Your task to perform on an android device: show emergency info Image 0: 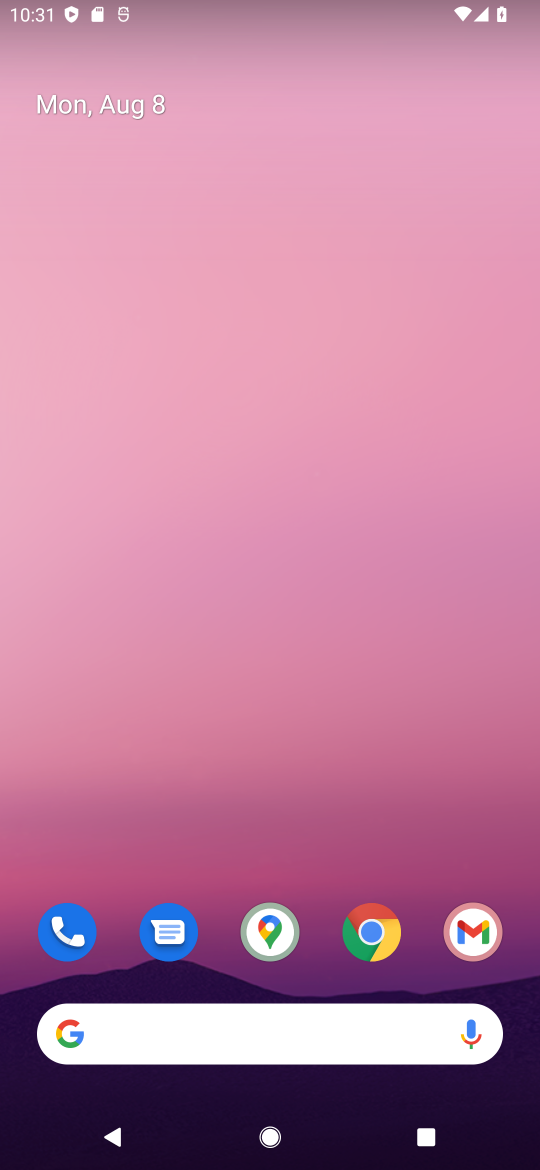
Step 0: drag from (234, 886) to (128, 377)
Your task to perform on an android device: show emergency info Image 1: 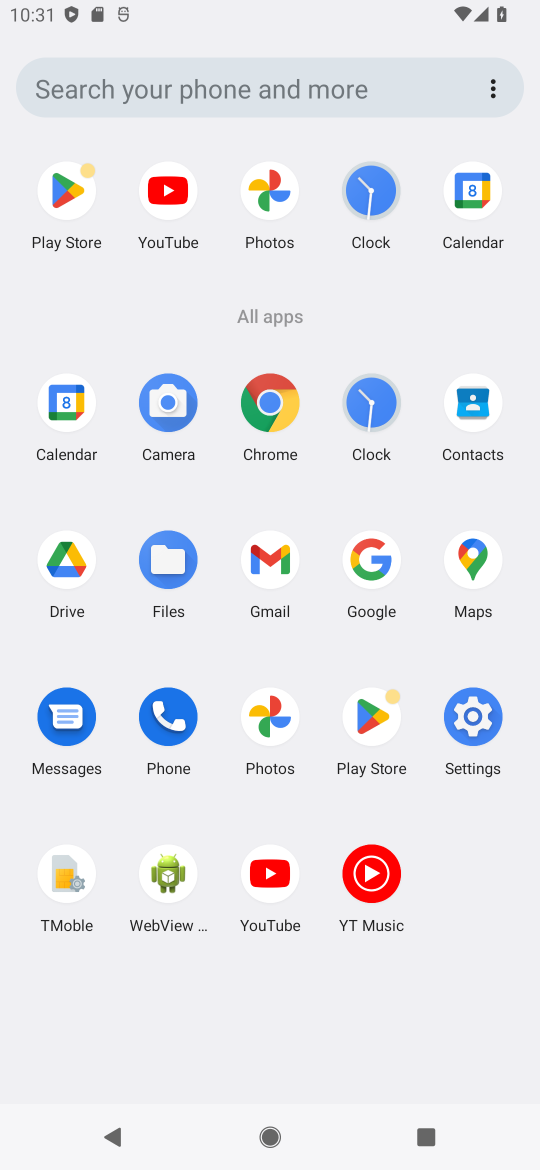
Step 1: click (471, 712)
Your task to perform on an android device: show emergency info Image 2: 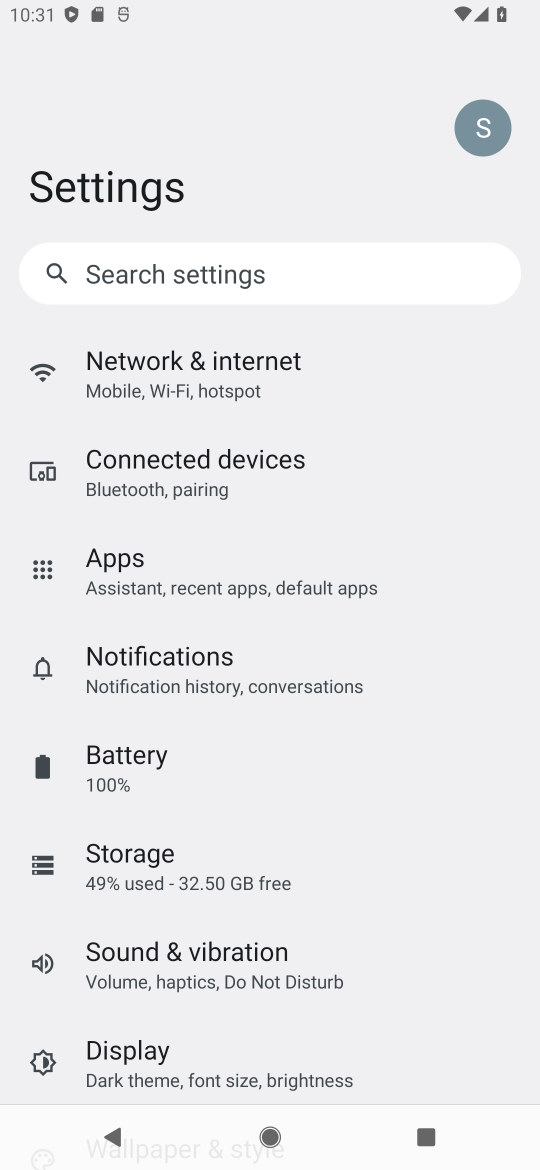
Step 2: drag from (190, 978) to (177, 148)
Your task to perform on an android device: show emergency info Image 3: 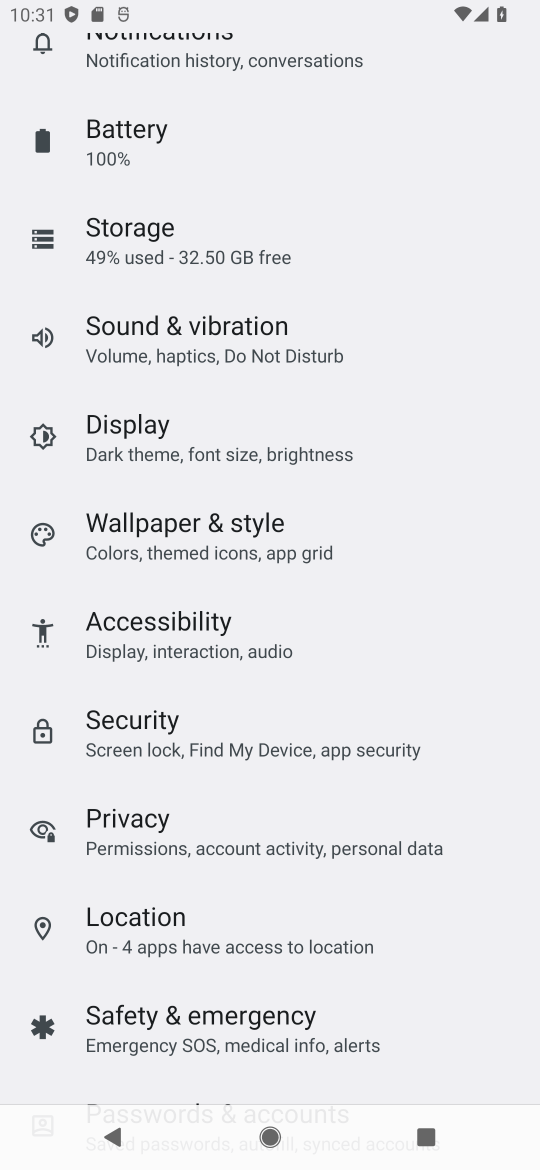
Step 3: click (207, 1027)
Your task to perform on an android device: show emergency info Image 4: 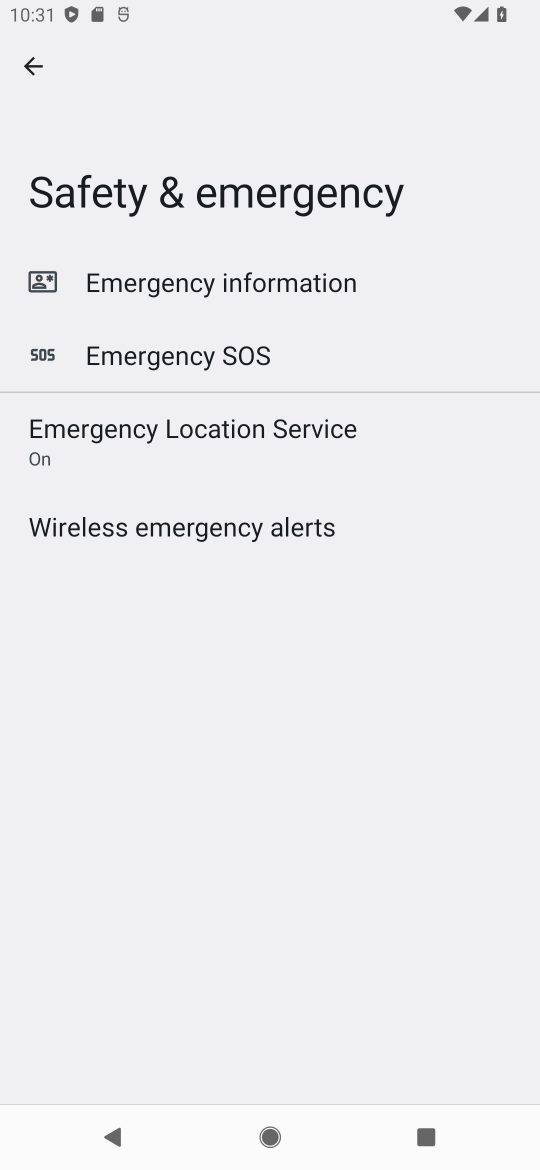
Step 4: click (323, 301)
Your task to perform on an android device: show emergency info Image 5: 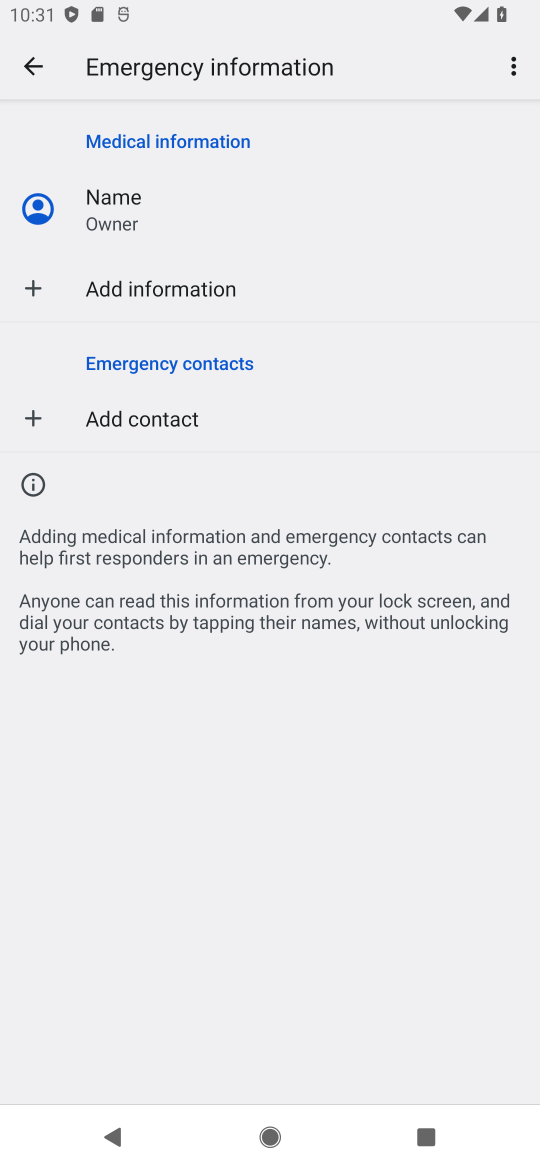
Step 5: task complete